Your task to perform on an android device: change the clock display to digital Image 0: 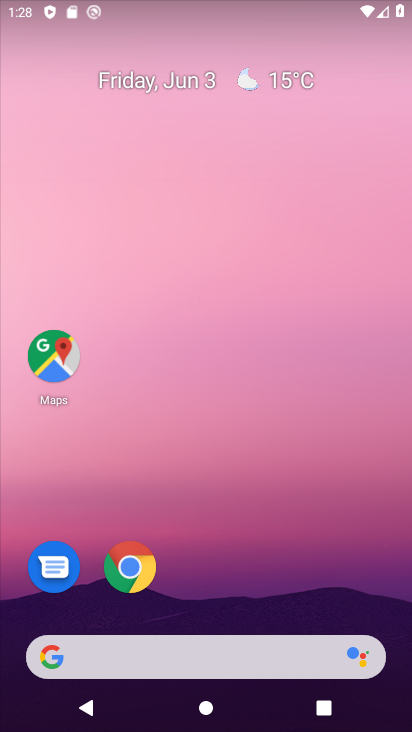
Step 0: drag from (218, 631) to (257, 0)
Your task to perform on an android device: change the clock display to digital Image 1: 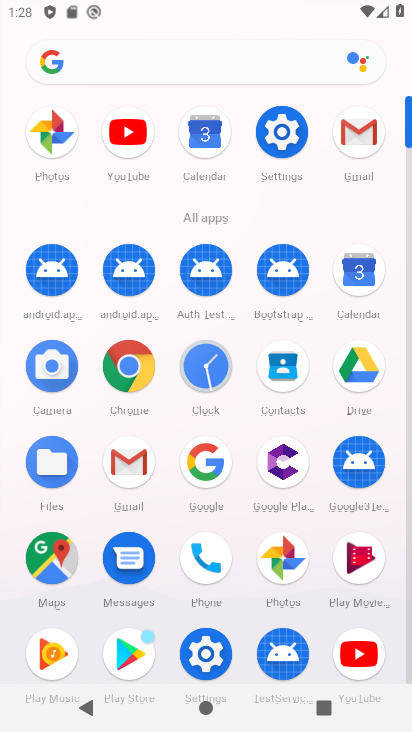
Step 1: click (208, 366)
Your task to perform on an android device: change the clock display to digital Image 2: 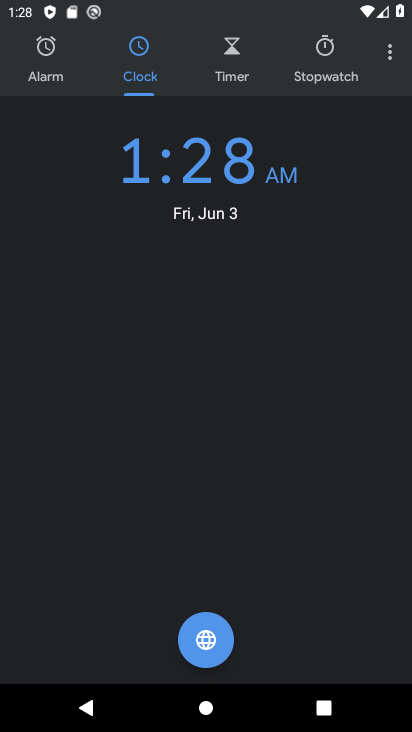
Step 2: click (387, 54)
Your task to perform on an android device: change the clock display to digital Image 3: 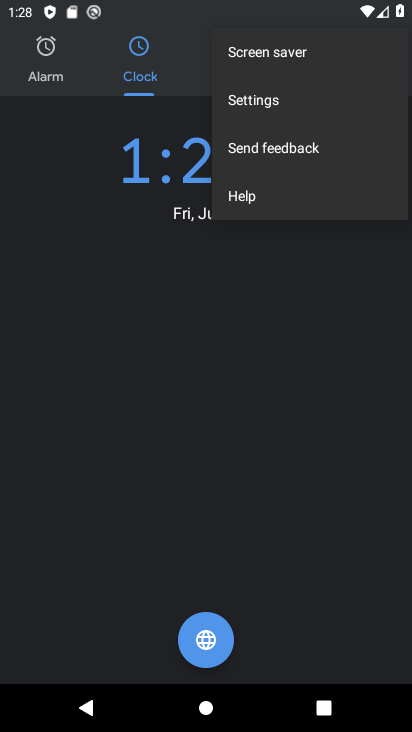
Step 3: click (267, 97)
Your task to perform on an android device: change the clock display to digital Image 4: 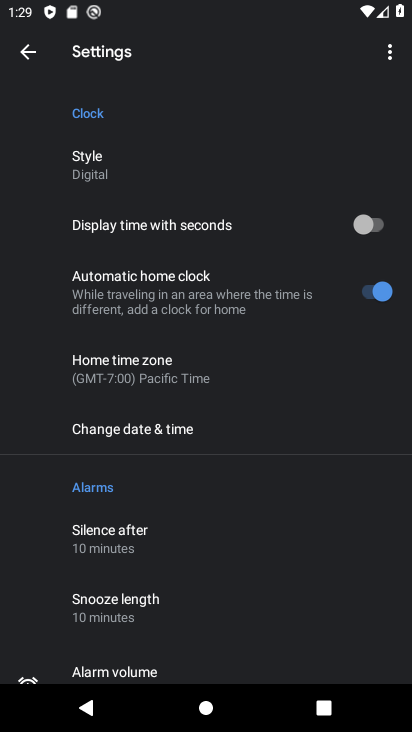
Step 4: task complete